Your task to perform on an android device: open app "ZOOM Cloud Meetings" (install if not already installed) Image 0: 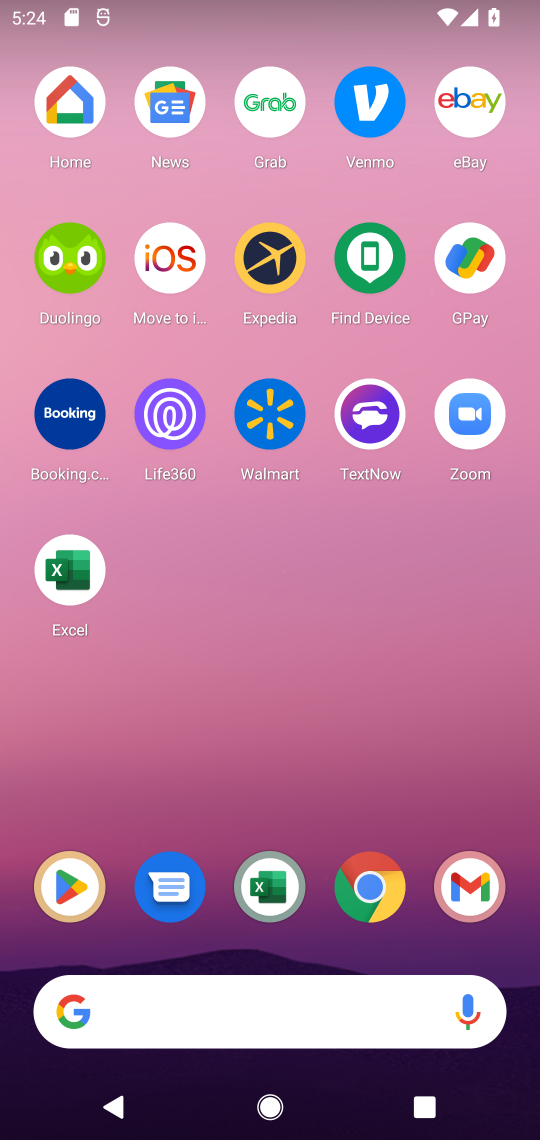
Step 0: drag from (281, 965) to (84, 45)
Your task to perform on an android device: open app "ZOOM Cloud Meetings" (install if not already installed) Image 1: 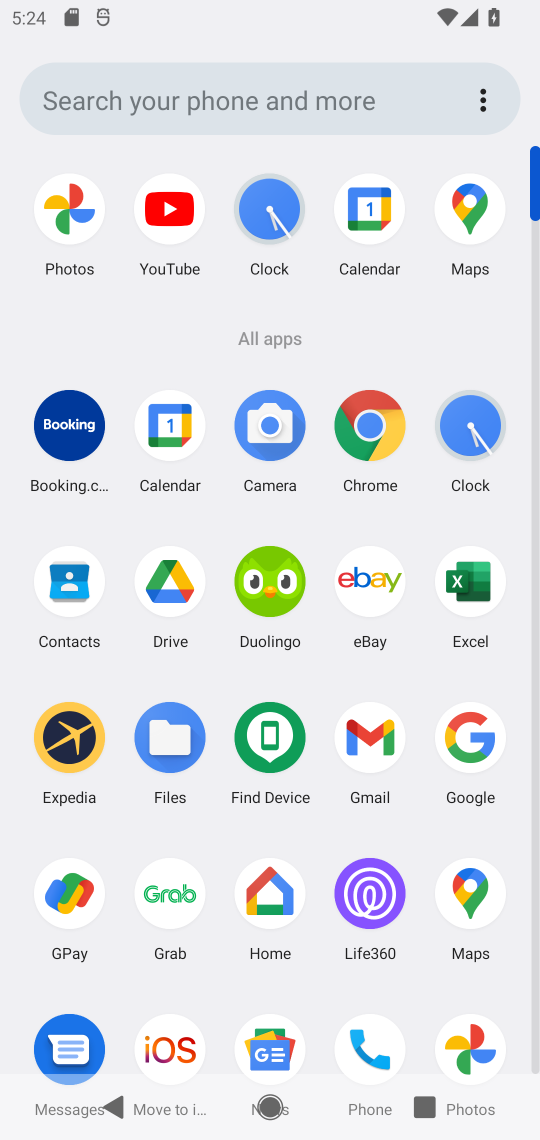
Step 1: drag from (116, 988) to (44, 200)
Your task to perform on an android device: open app "ZOOM Cloud Meetings" (install if not already installed) Image 2: 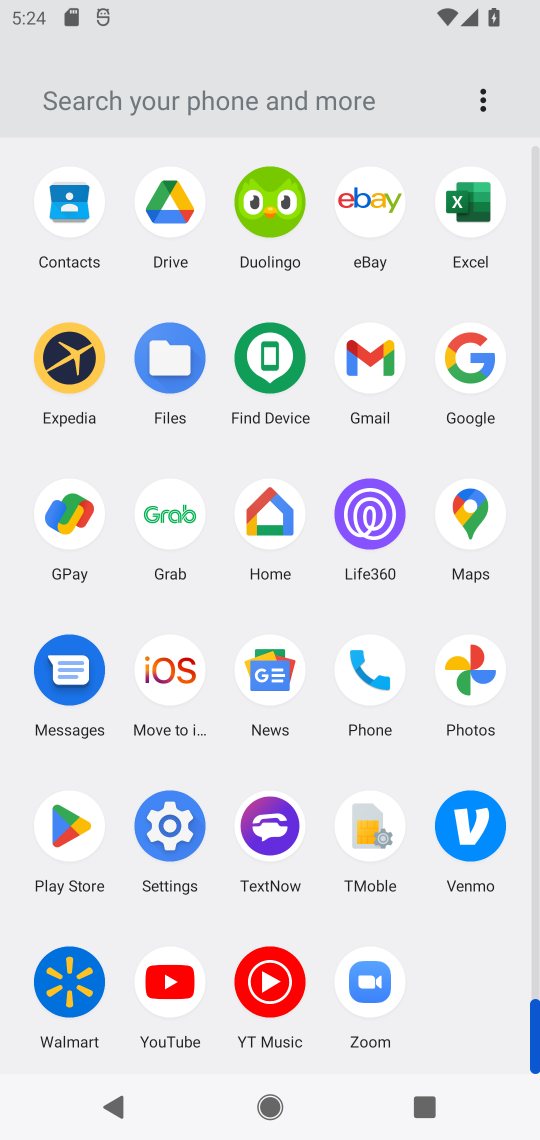
Step 2: click (48, 834)
Your task to perform on an android device: open app "ZOOM Cloud Meetings" (install if not already installed) Image 3: 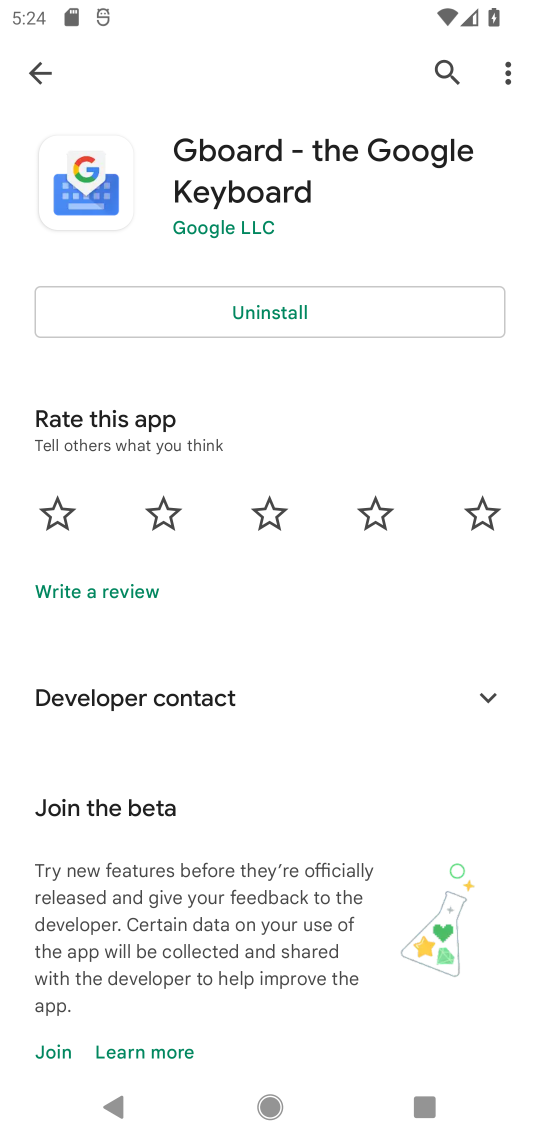
Step 3: click (56, 77)
Your task to perform on an android device: open app "ZOOM Cloud Meetings" (install if not already installed) Image 4: 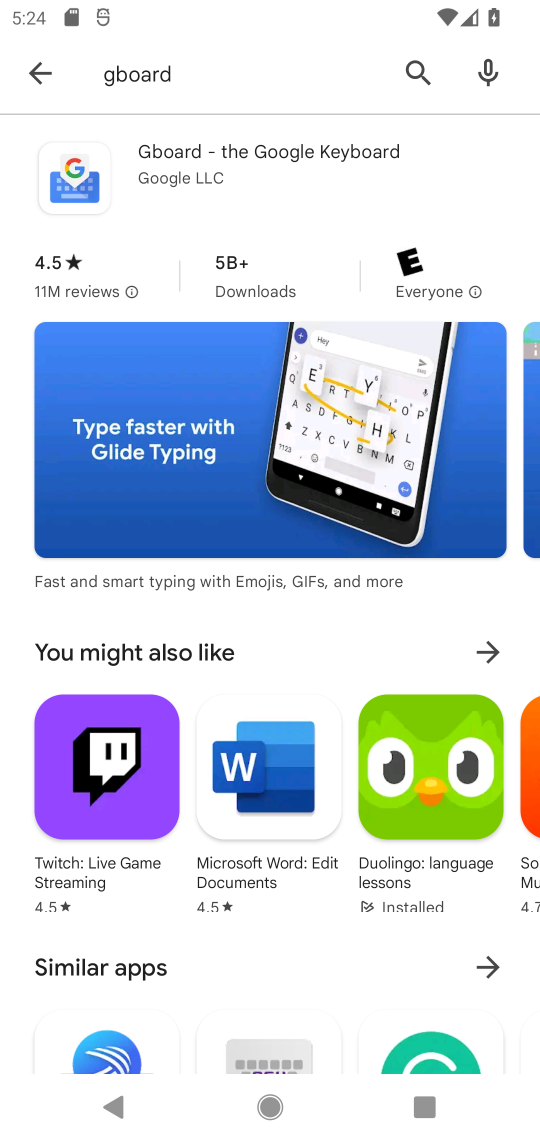
Step 4: click (37, 69)
Your task to perform on an android device: open app "ZOOM Cloud Meetings" (install if not already installed) Image 5: 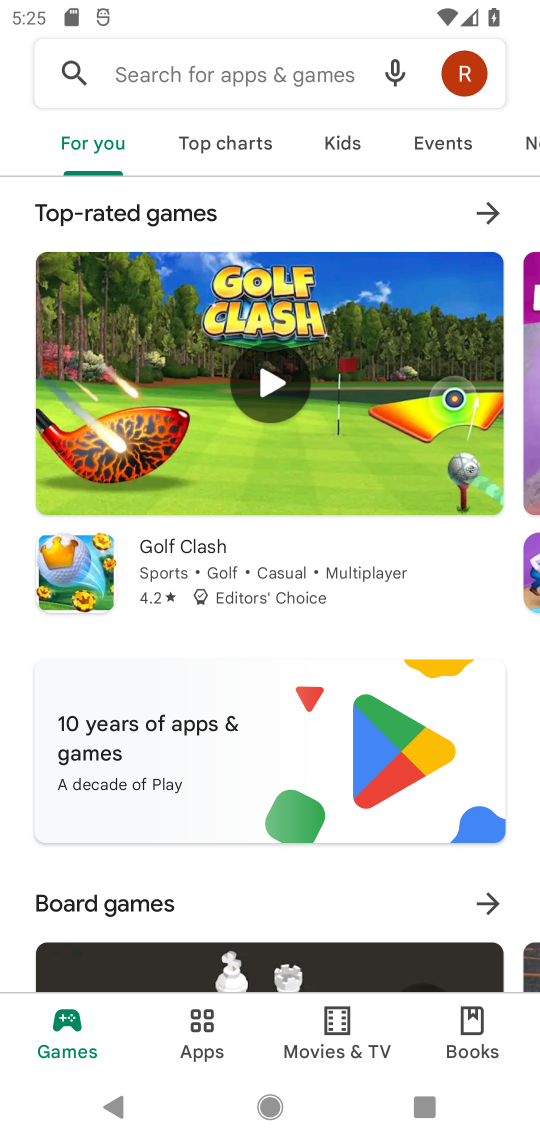
Step 5: click (163, 64)
Your task to perform on an android device: open app "ZOOM Cloud Meetings" (install if not already installed) Image 6: 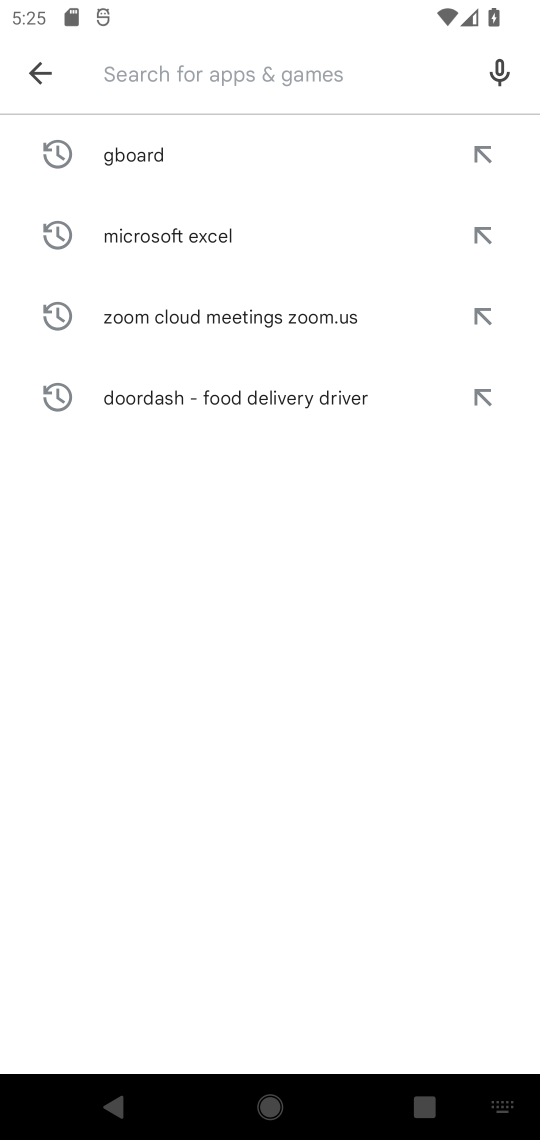
Step 6: click (150, 319)
Your task to perform on an android device: open app "ZOOM Cloud Meetings" (install if not already installed) Image 7: 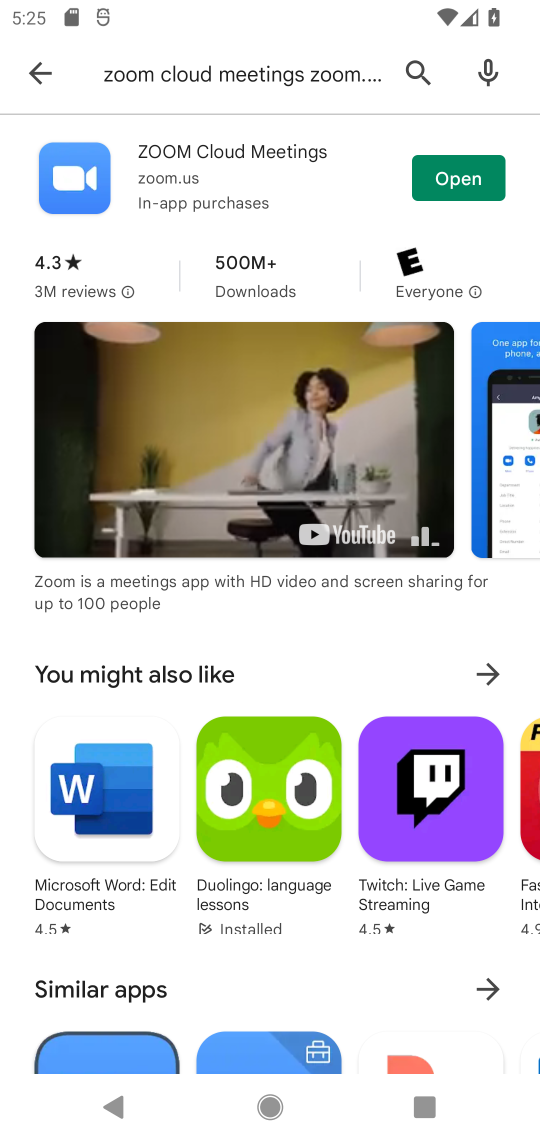
Step 7: click (431, 168)
Your task to perform on an android device: open app "ZOOM Cloud Meetings" (install if not already installed) Image 8: 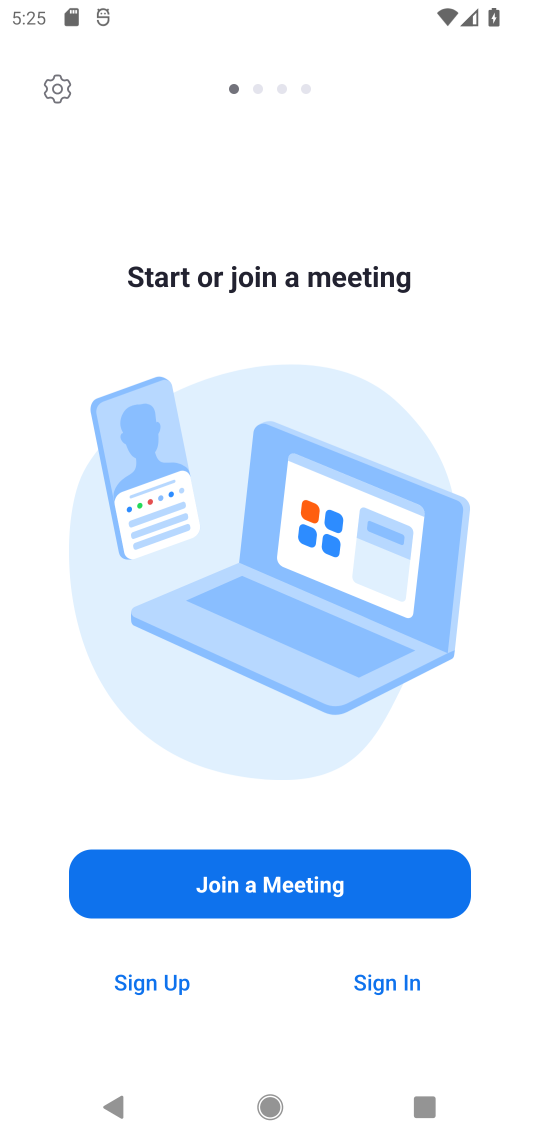
Step 8: task complete